Your task to perform on an android device: Open battery settings Image 0: 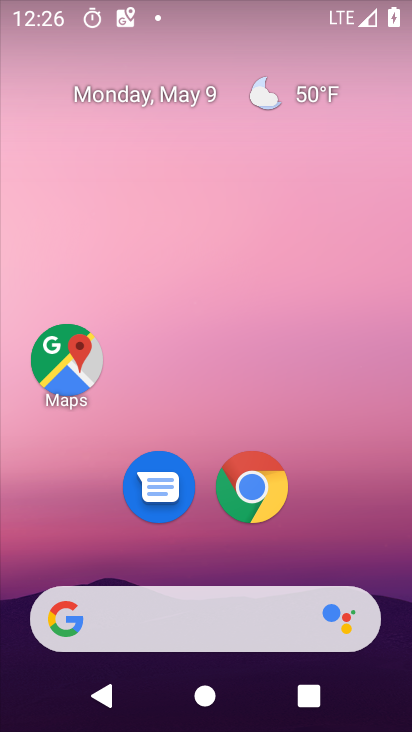
Step 0: drag from (338, 541) to (338, 13)
Your task to perform on an android device: Open battery settings Image 1: 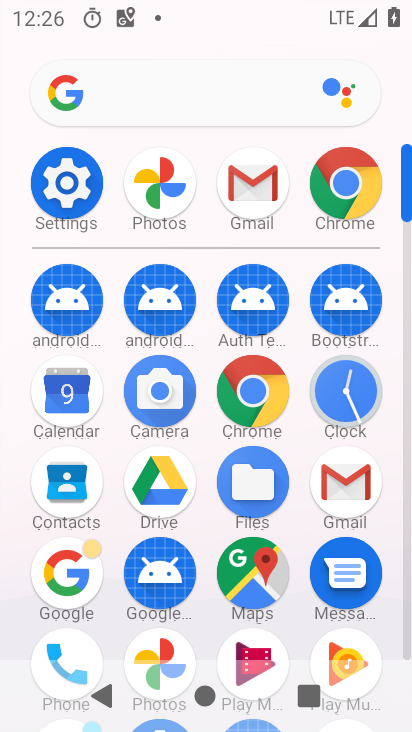
Step 1: click (58, 178)
Your task to perform on an android device: Open battery settings Image 2: 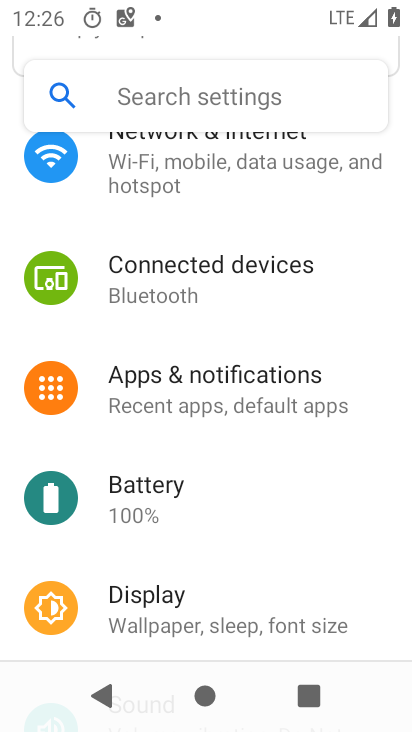
Step 2: click (165, 501)
Your task to perform on an android device: Open battery settings Image 3: 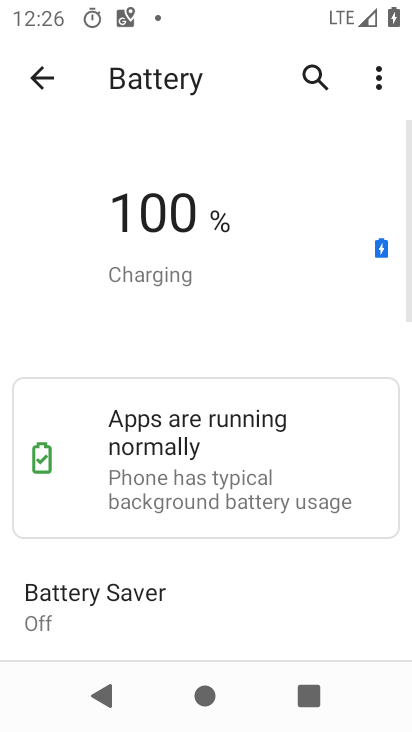
Step 3: task complete